Your task to perform on an android device: Open Google Maps Image 0: 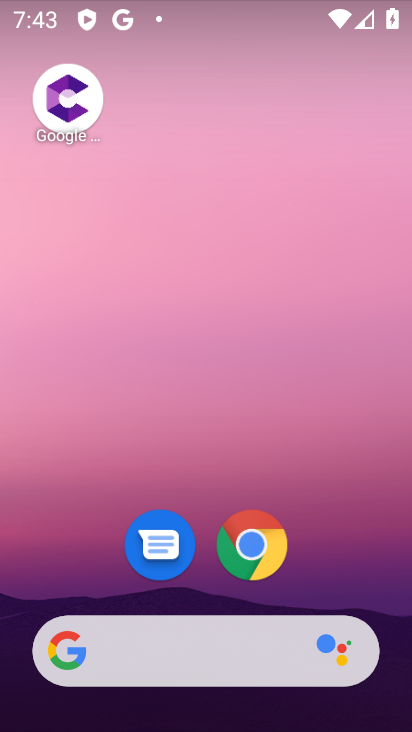
Step 0: drag from (327, 551) to (296, 65)
Your task to perform on an android device: Open Google Maps Image 1: 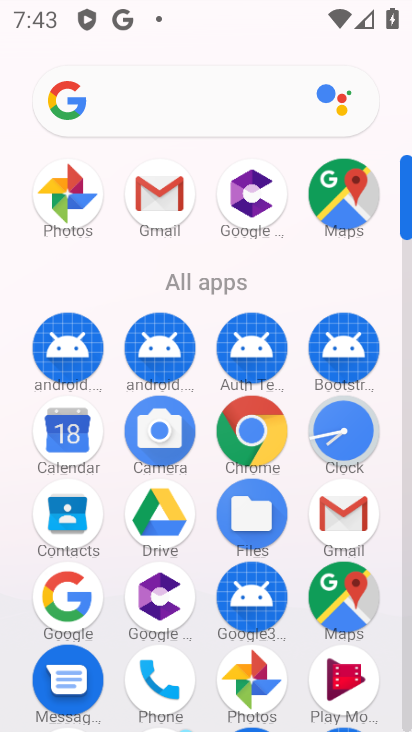
Step 1: click (342, 600)
Your task to perform on an android device: Open Google Maps Image 2: 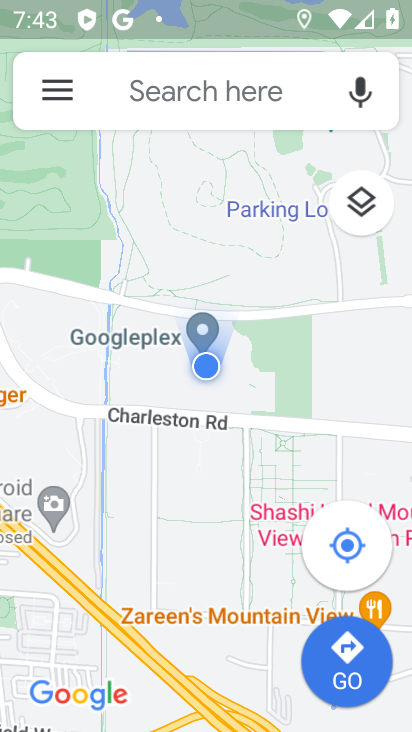
Step 2: task complete